Your task to perform on an android device: change text size in settings app Image 0: 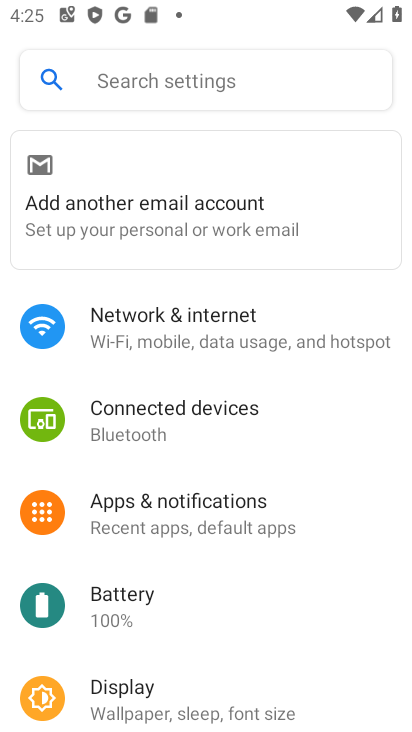
Step 0: drag from (189, 682) to (163, 285)
Your task to perform on an android device: change text size in settings app Image 1: 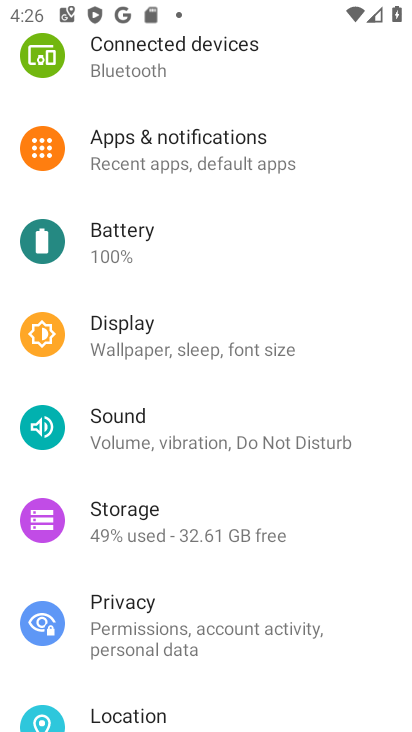
Step 1: click (181, 351)
Your task to perform on an android device: change text size in settings app Image 2: 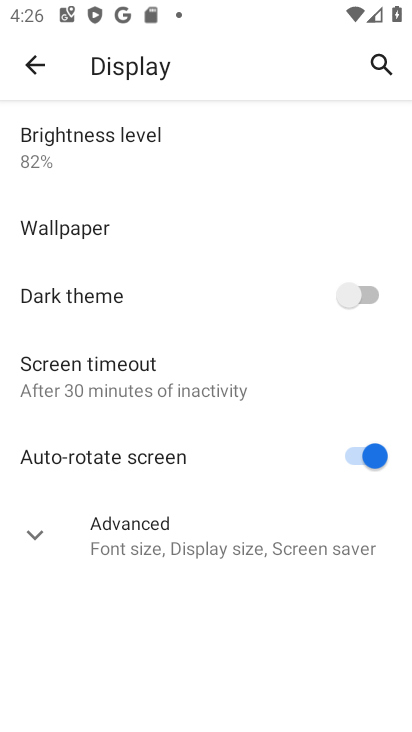
Step 2: click (148, 542)
Your task to perform on an android device: change text size in settings app Image 3: 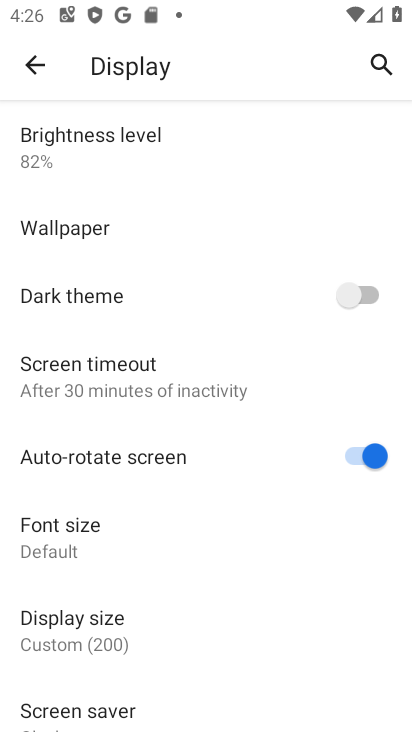
Step 3: click (57, 544)
Your task to perform on an android device: change text size in settings app Image 4: 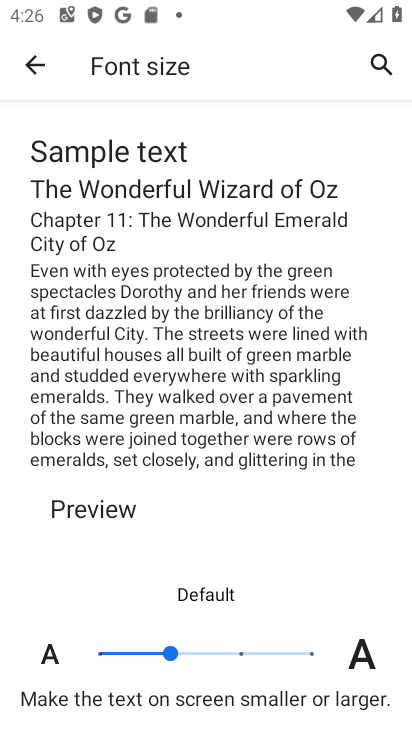
Step 4: click (240, 653)
Your task to perform on an android device: change text size in settings app Image 5: 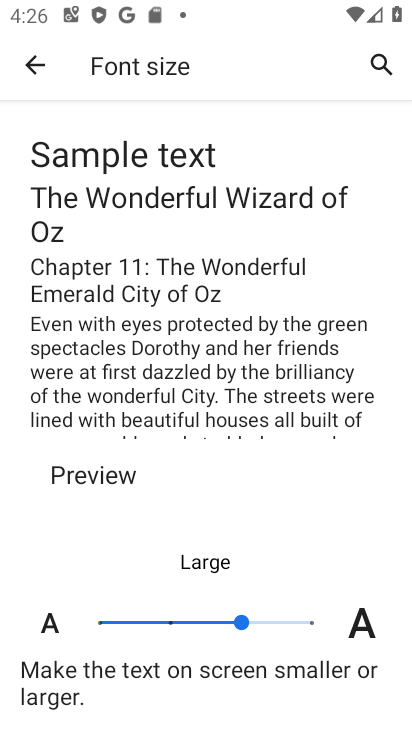
Step 5: task complete